Your task to perform on an android device: empty trash in google photos Image 0: 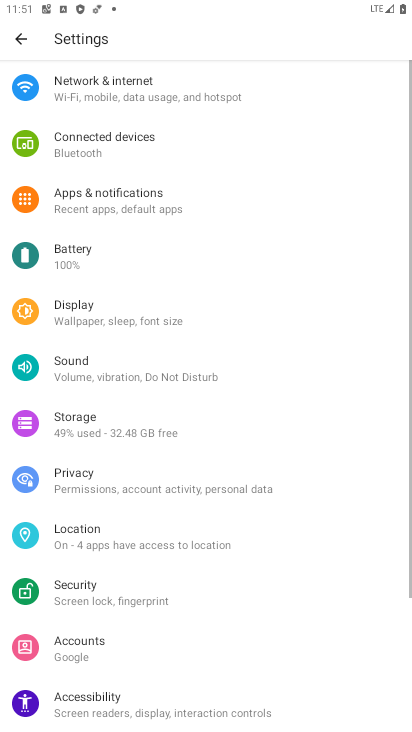
Step 0: press home button
Your task to perform on an android device: empty trash in google photos Image 1: 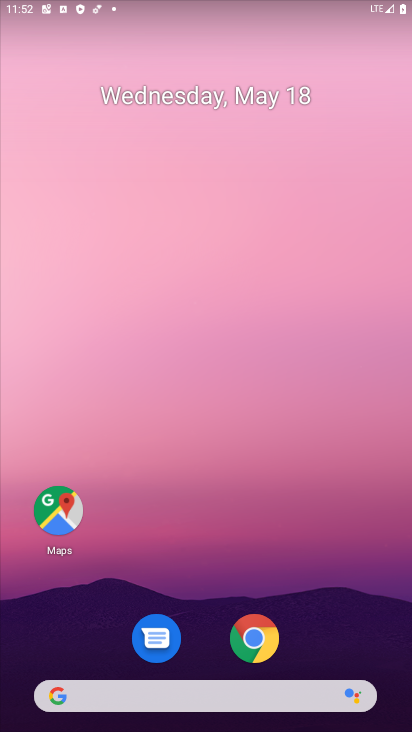
Step 1: drag from (306, 628) to (354, 78)
Your task to perform on an android device: empty trash in google photos Image 2: 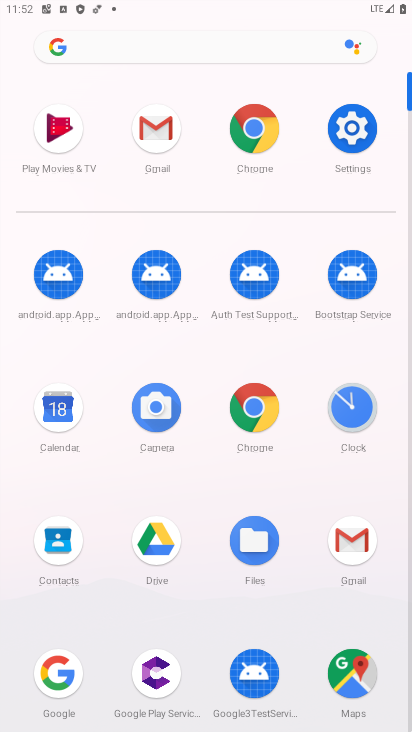
Step 2: drag from (324, 646) to (346, 283)
Your task to perform on an android device: empty trash in google photos Image 3: 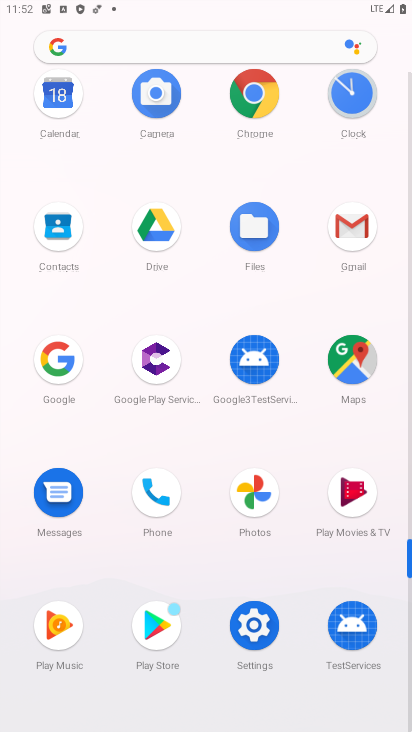
Step 3: click (250, 514)
Your task to perform on an android device: empty trash in google photos Image 4: 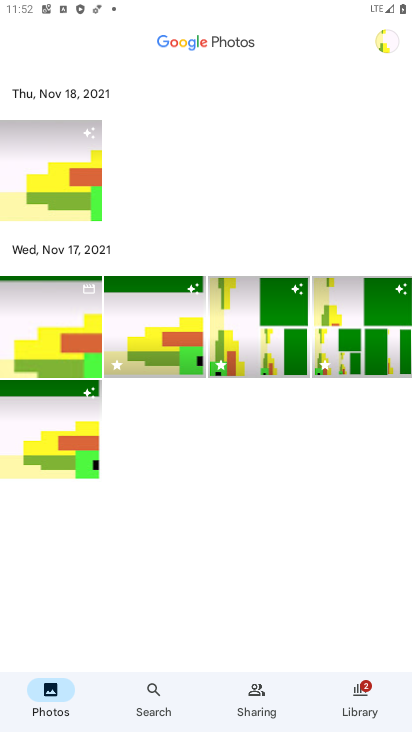
Step 4: click (354, 686)
Your task to perform on an android device: empty trash in google photos Image 5: 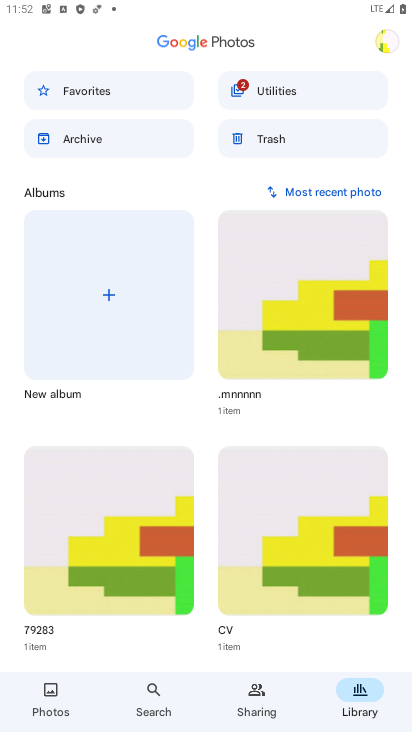
Step 5: click (280, 139)
Your task to perform on an android device: empty trash in google photos Image 6: 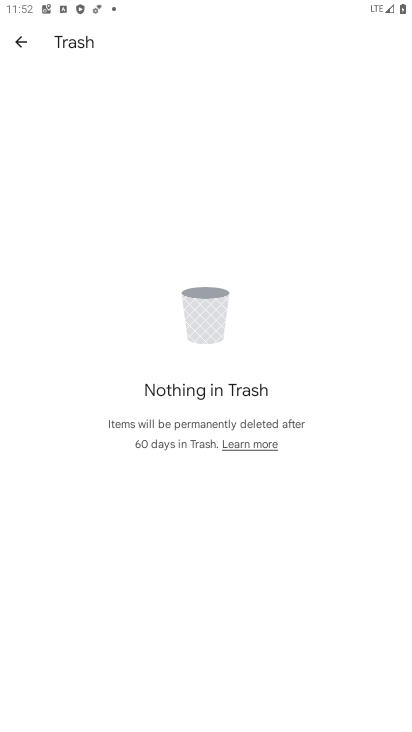
Step 6: task complete